Your task to perform on an android device: turn off wifi Image 0: 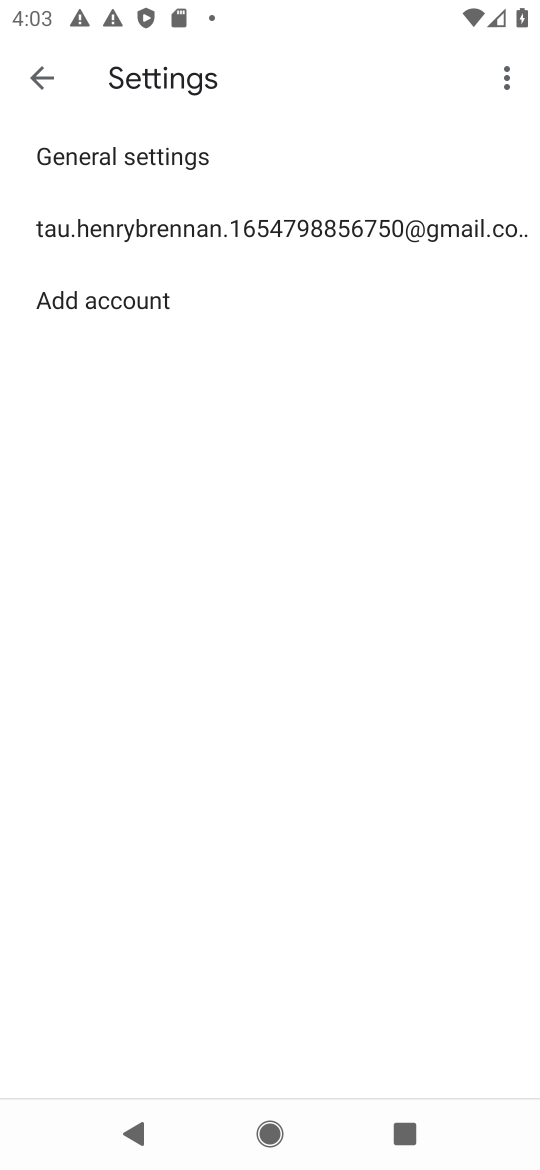
Step 0: drag from (264, 13) to (433, 1111)
Your task to perform on an android device: turn off wifi Image 1: 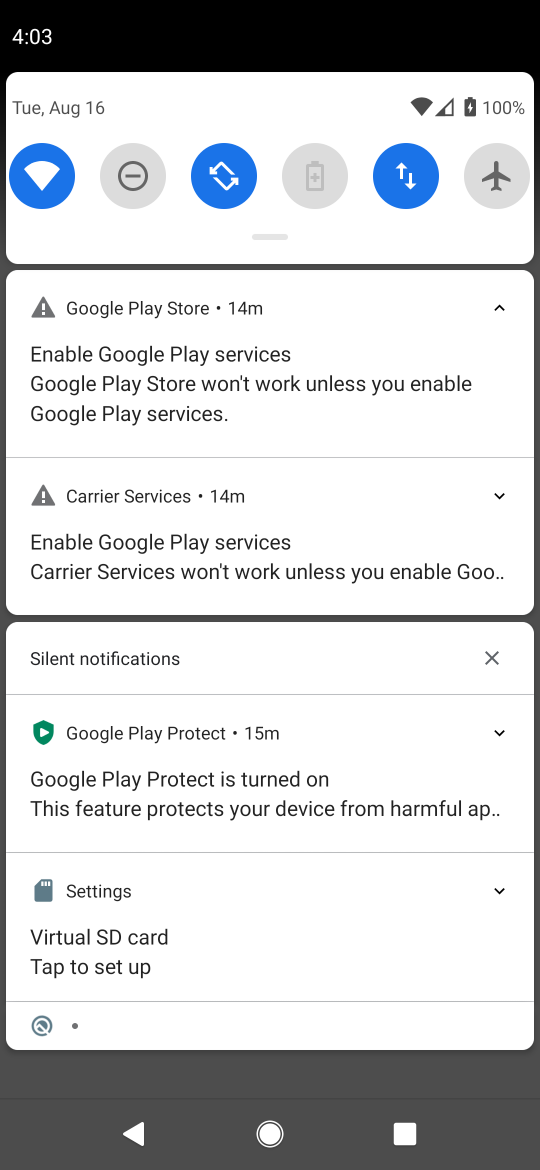
Step 1: click (55, 168)
Your task to perform on an android device: turn off wifi Image 2: 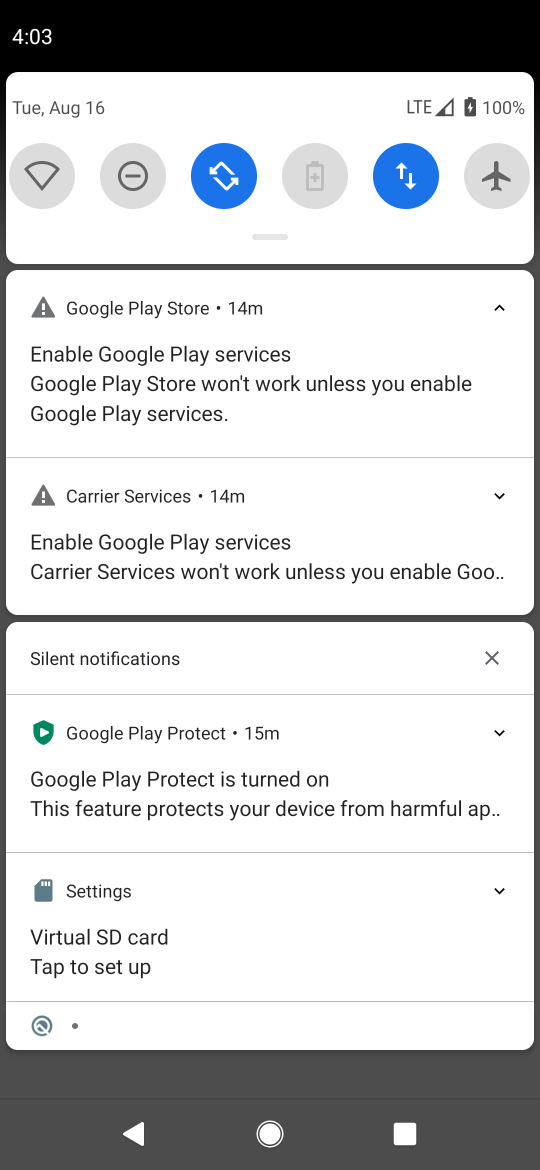
Step 2: task complete